Your task to perform on an android device: Open the map Image 0: 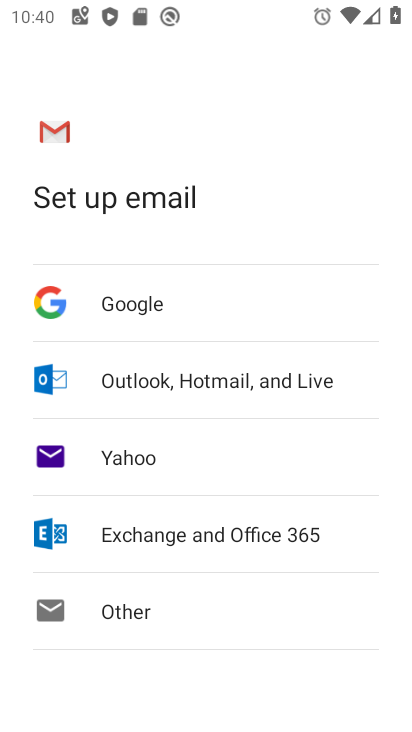
Step 0: press home button
Your task to perform on an android device: Open the map Image 1: 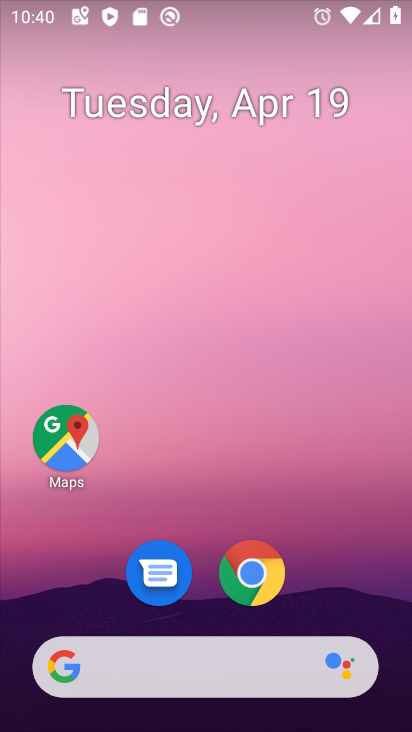
Step 1: click (55, 444)
Your task to perform on an android device: Open the map Image 2: 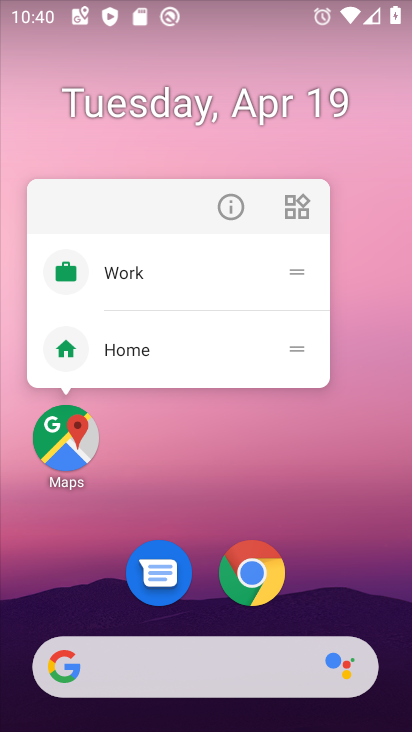
Step 2: click (55, 444)
Your task to perform on an android device: Open the map Image 3: 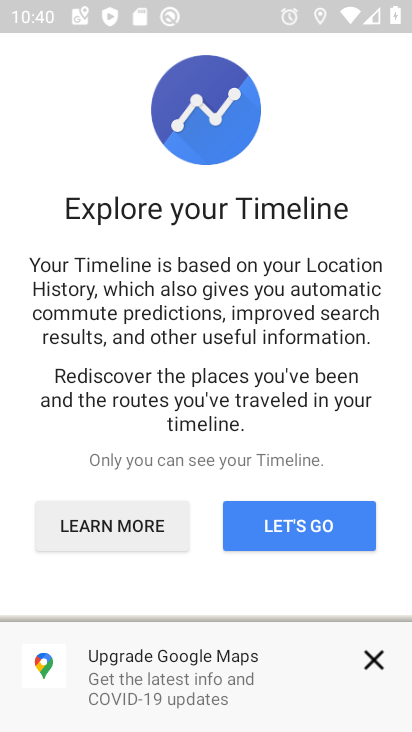
Step 3: click (371, 659)
Your task to perform on an android device: Open the map Image 4: 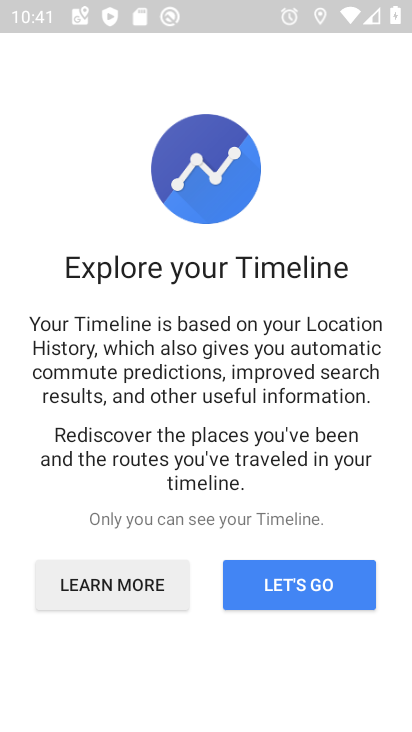
Step 4: task complete